Your task to perform on an android device: Set an alarm for 9am Image 0: 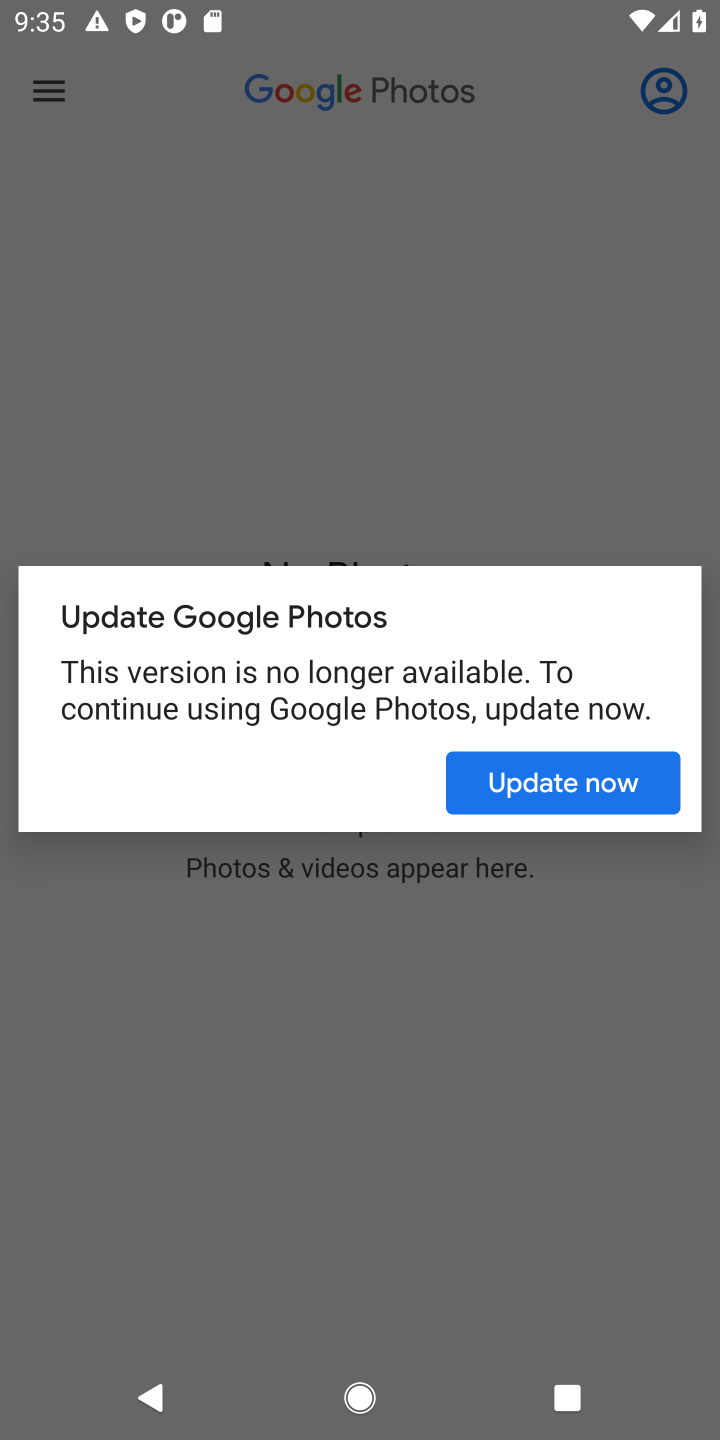
Step 0: press home button
Your task to perform on an android device: Set an alarm for 9am Image 1: 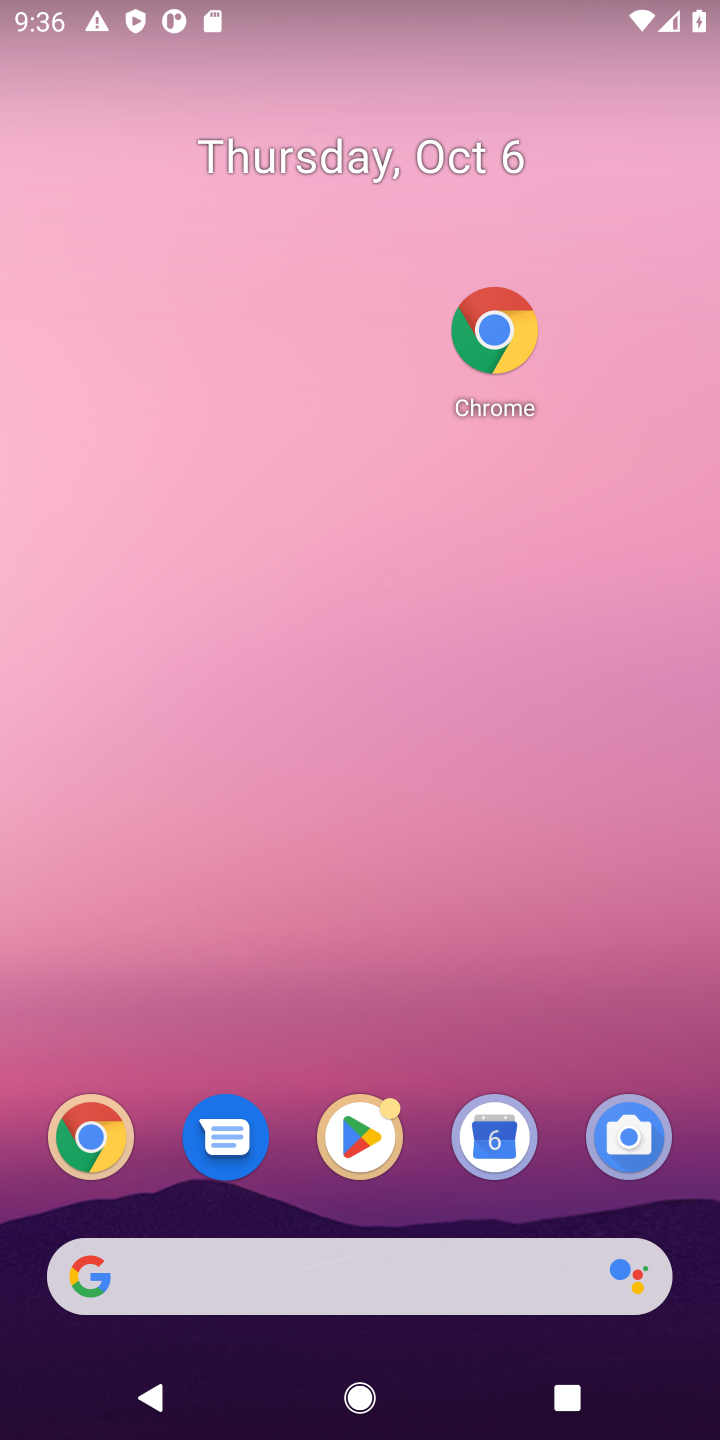
Step 1: drag from (433, 1105) to (496, 5)
Your task to perform on an android device: Set an alarm for 9am Image 2: 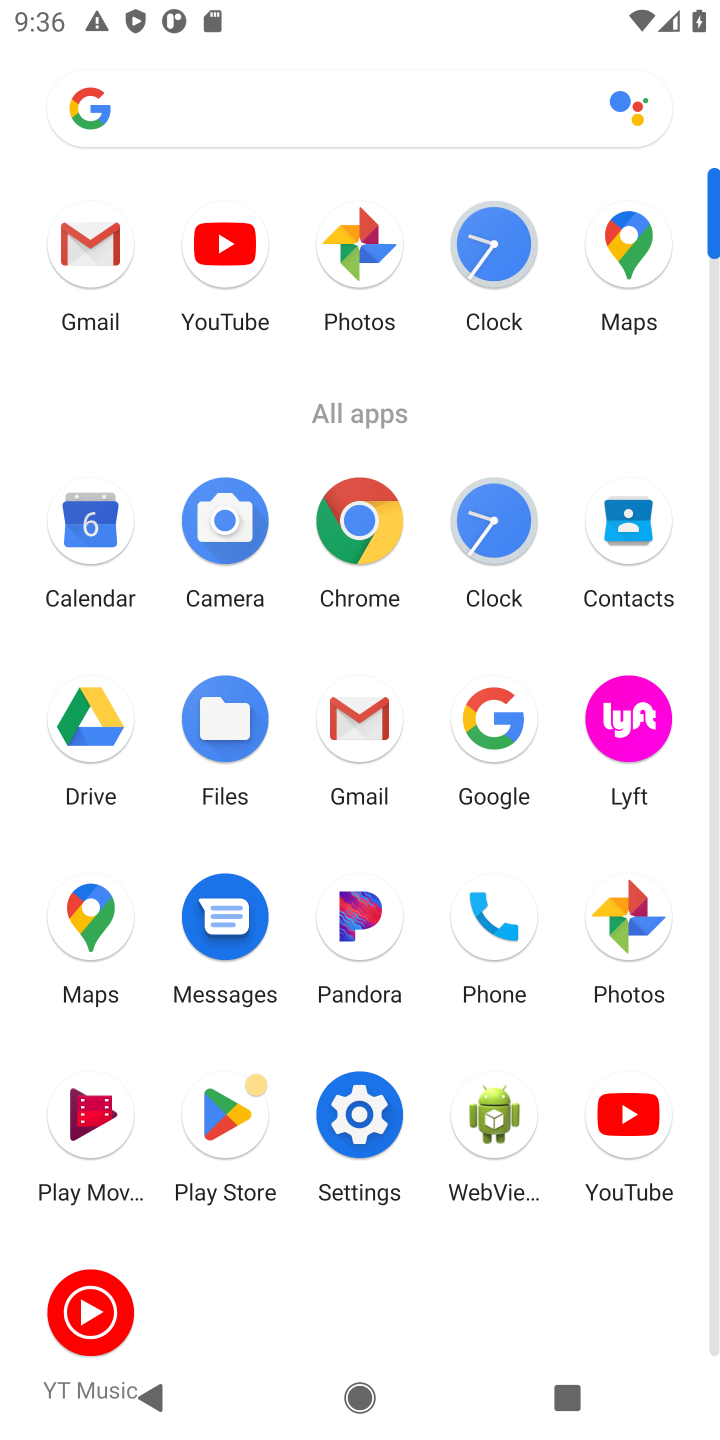
Step 2: click (501, 526)
Your task to perform on an android device: Set an alarm for 9am Image 3: 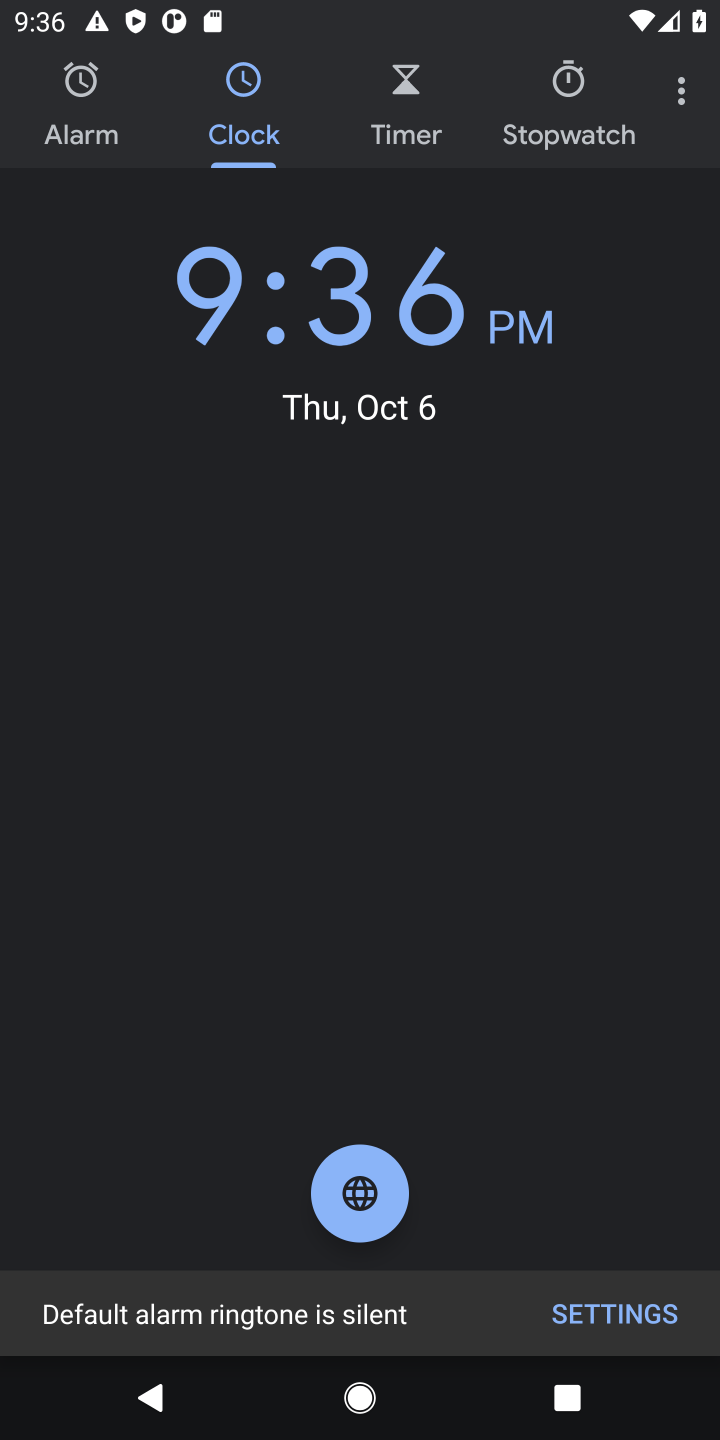
Step 3: click (77, 134)
Your task to perform on an android device: Set an alarm for 9am Image 4: 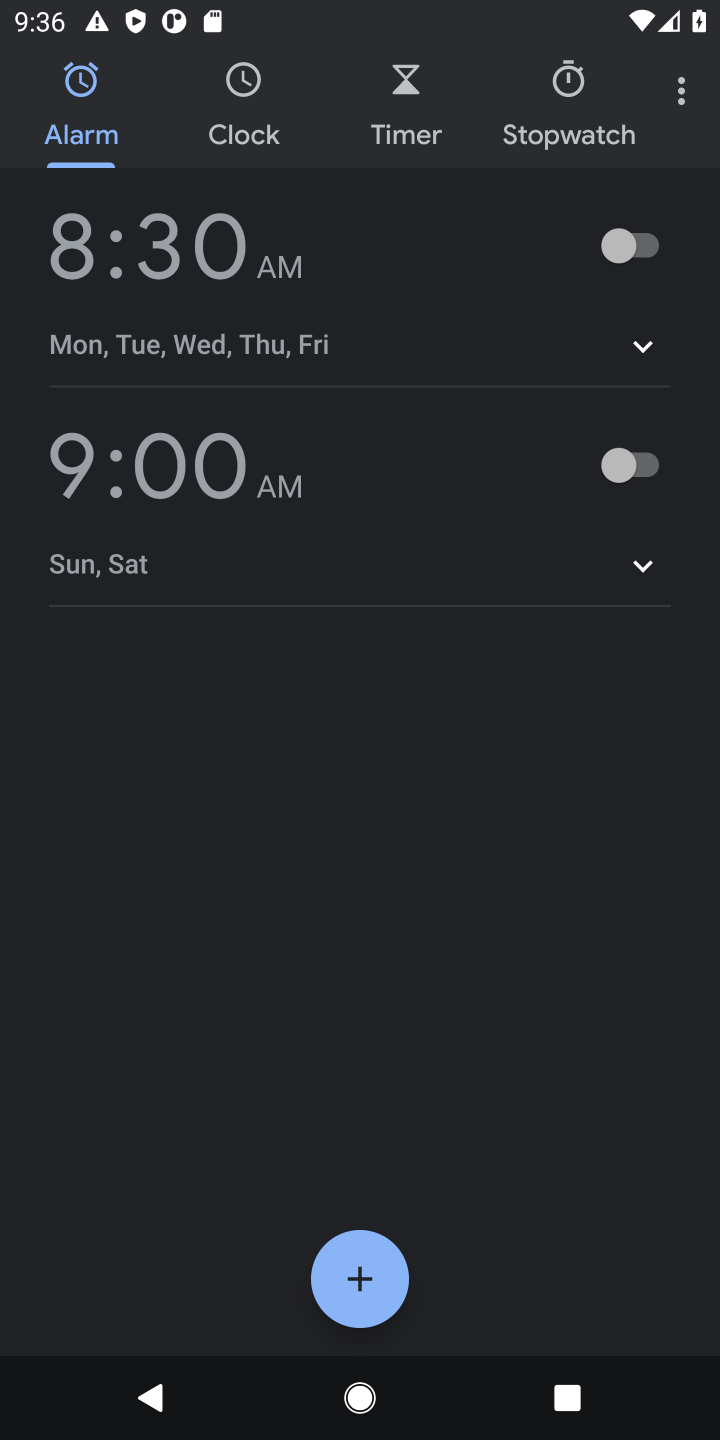
Step 4: click (364, 1269)
Your task to perform on an android device: Set an alarm for 9am Image 5: 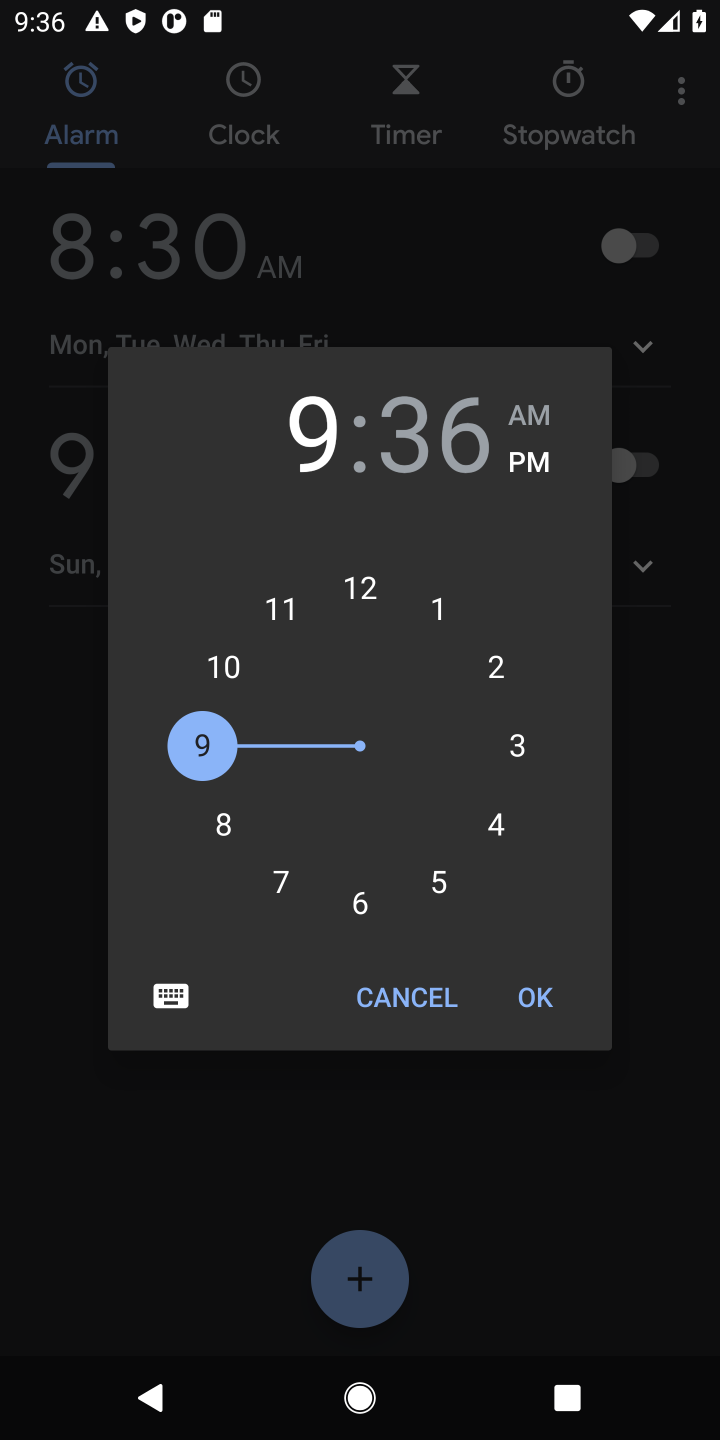
Step 5: click (207, 746)
Your task to perform on an android device: Set an alarm for 9am Image 6: 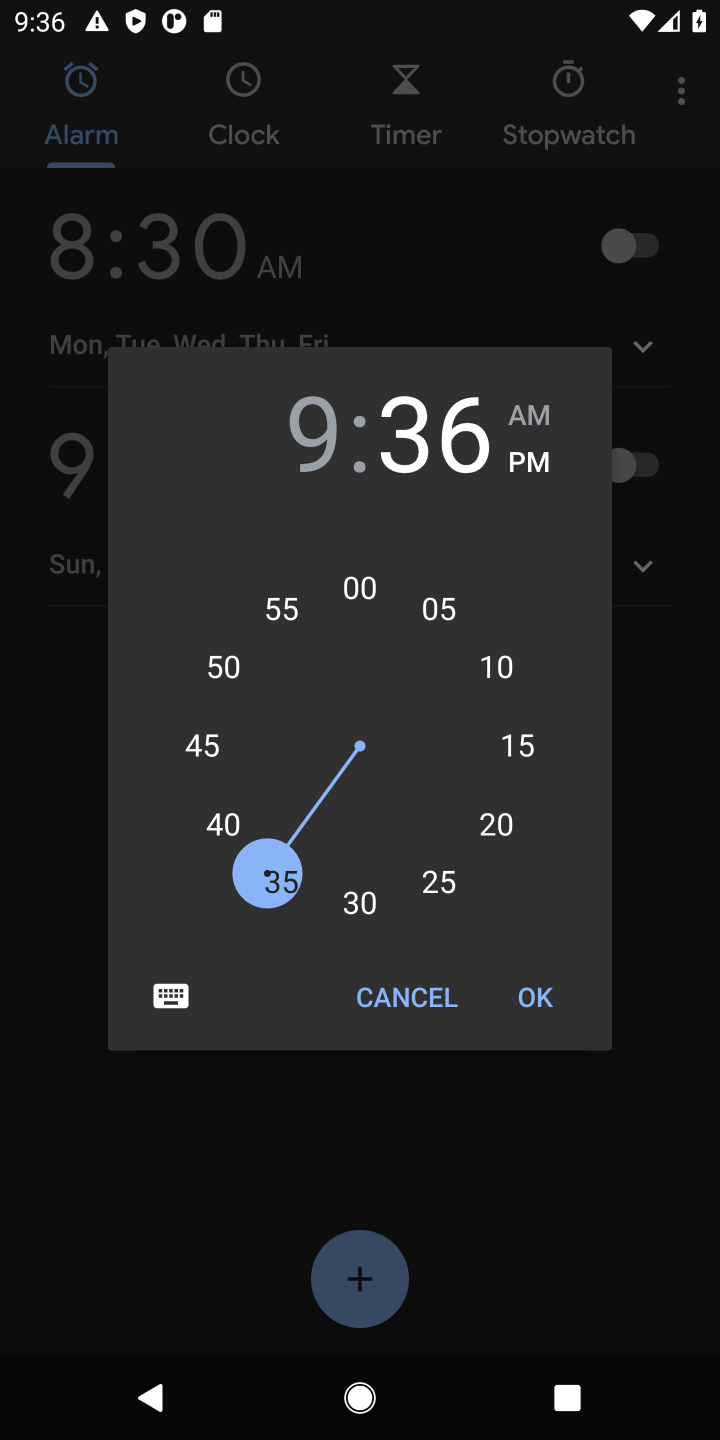
Step 6: click (366, 606)
Your task to perform on an android device: Set an alarm for 9am Image 7: 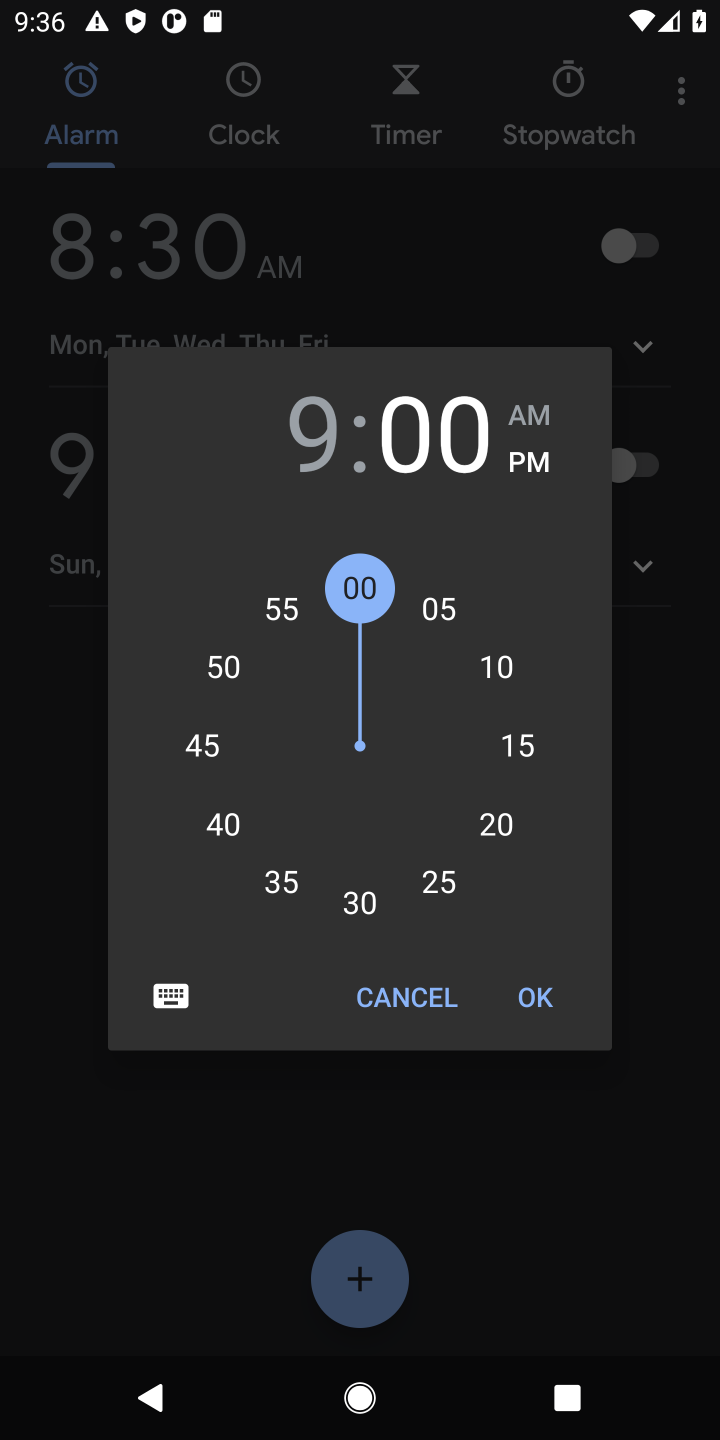
Step 7: click (539, 426)
Your task to perform on an android device: Set an alarm for 9am Image 8: 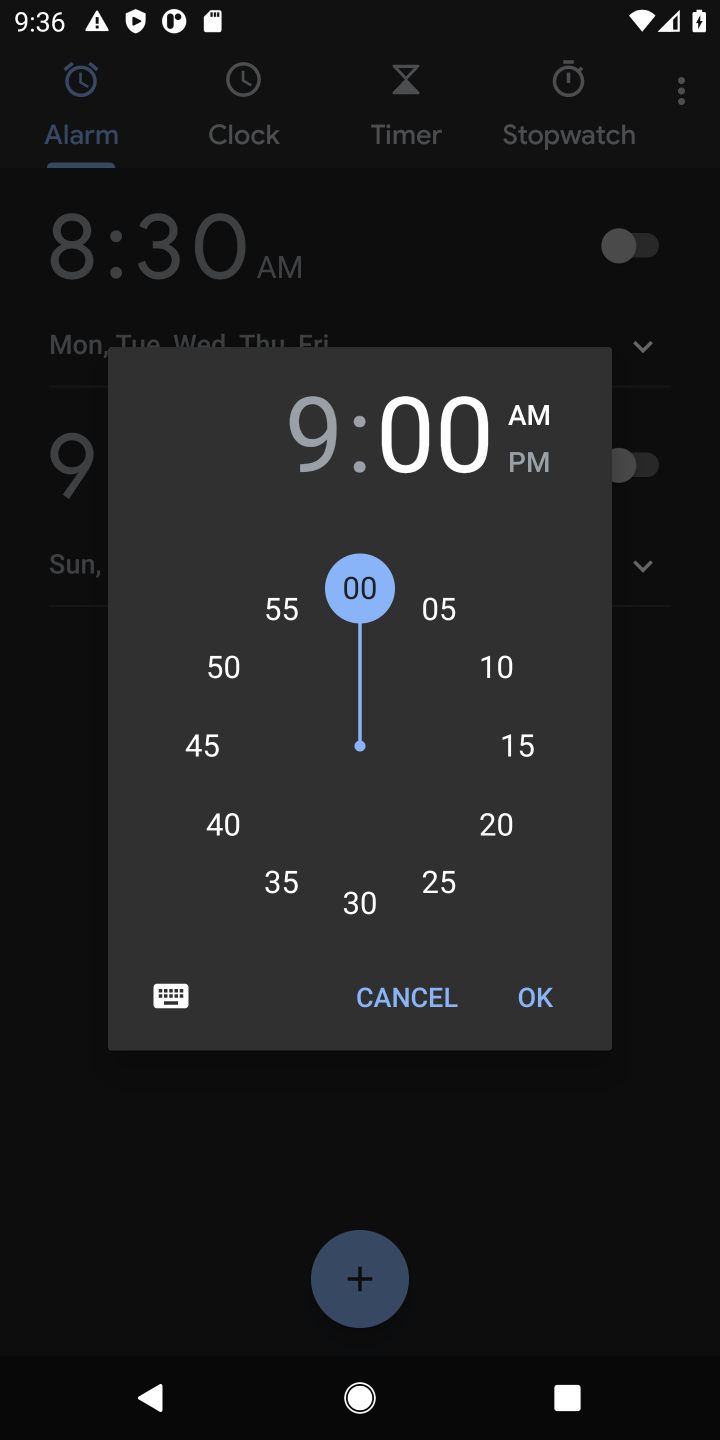
Step 8: click (542, 1012)
Your task to perform on an android device: Set an alarm for 9am Image 9: 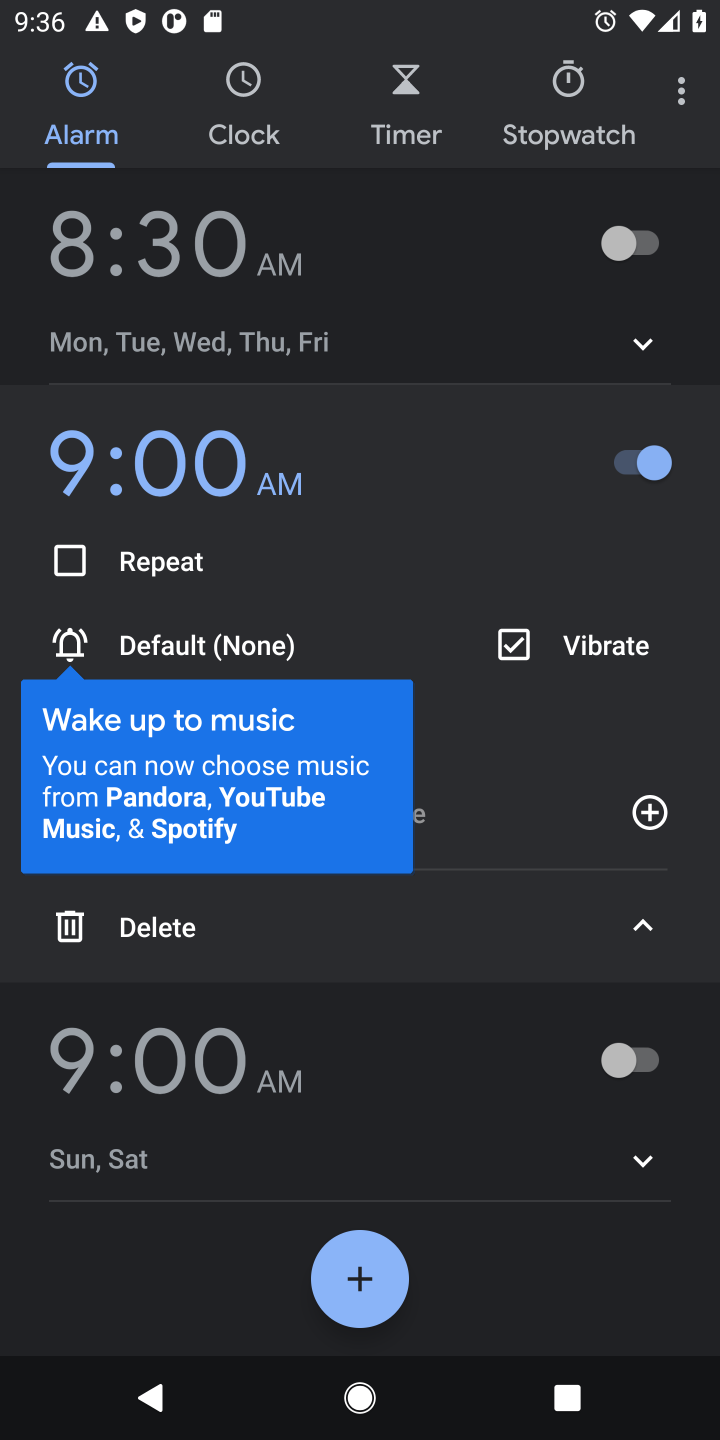
Step 9: task complete